Your task to perform on an android device: Go to Google maps Image 0: 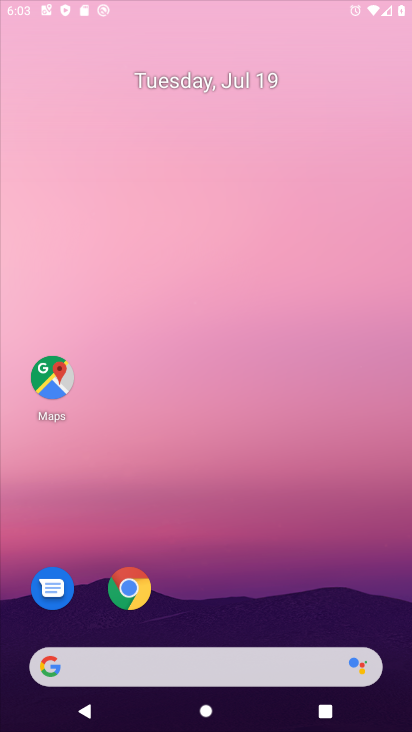
Step 0: click (154, 651)
Your task to perform on an android device: Go to Google maps Image 1: 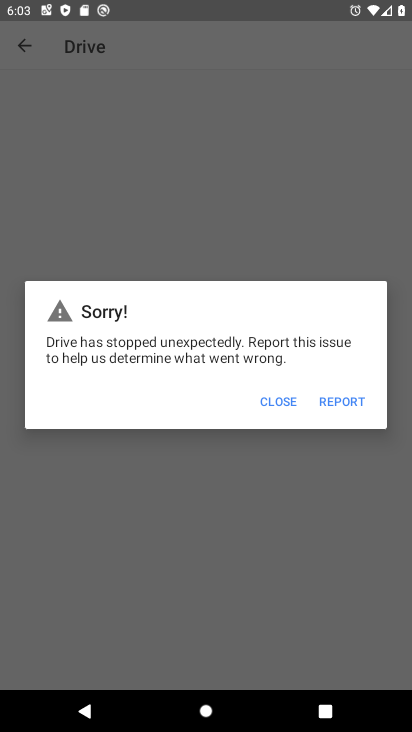
Step 1: press home button
Your task to perform on an android device: Go to Google maps Image 2: 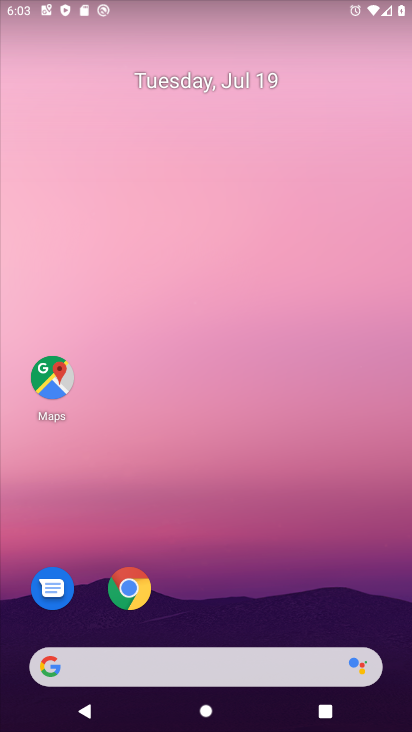
Step 2: click (57, 379)
Your task to perform on an android device: Go to Google maps Image 3: 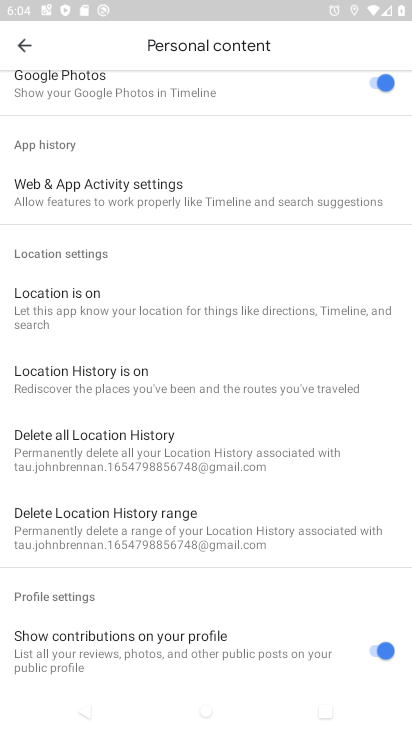
Step 3: task complete